Your task to perform on an android device: Open the calendar app, open the side menu, and click the "Day" option Image 0: 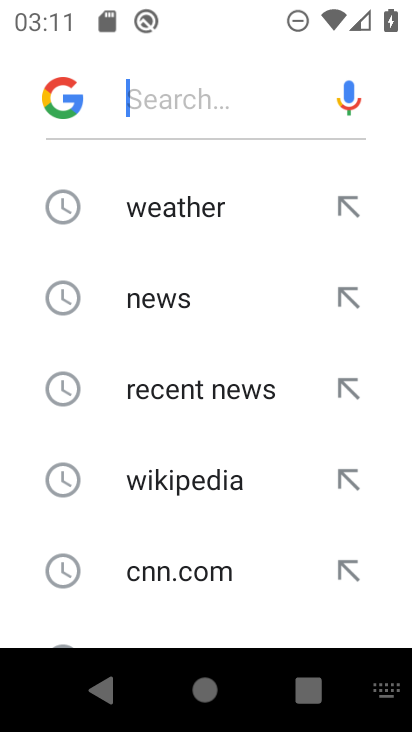
Step 0: press home button
Your task to perform on an android device: Open the calendar app, open the side menu, and click the "Day" option Image 1: 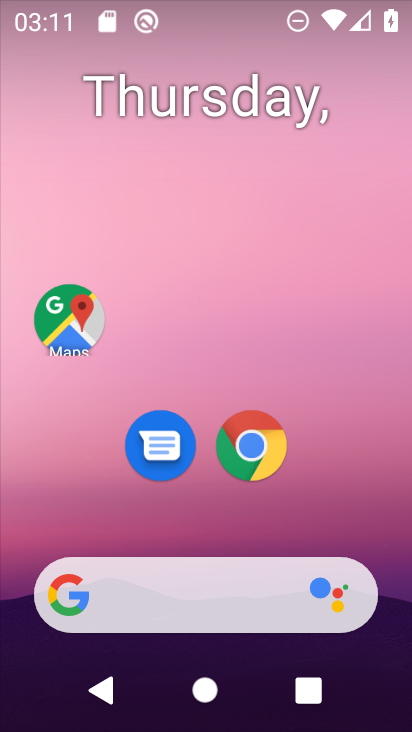
Step 1: drag from (359, 554) to (344, 7)
Your task to perform on an android device: Open the calendar app, open the side menu, and click the "Day" option Image 2: 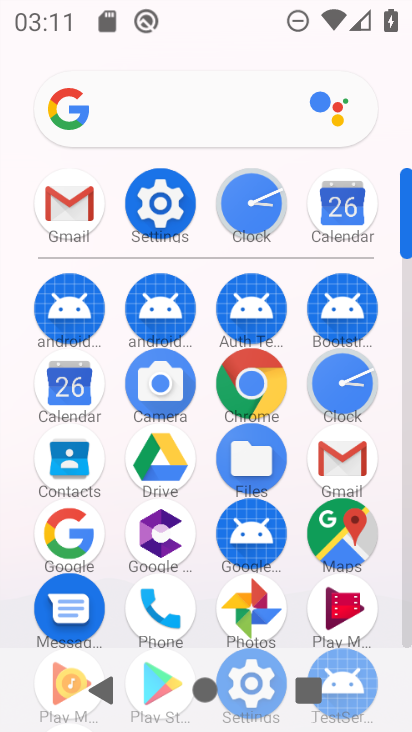
Step 2: click (349, 206)
Your task to perform on an android device: Open the calendar app, open the side menu, and click the "Day" option Image 3: 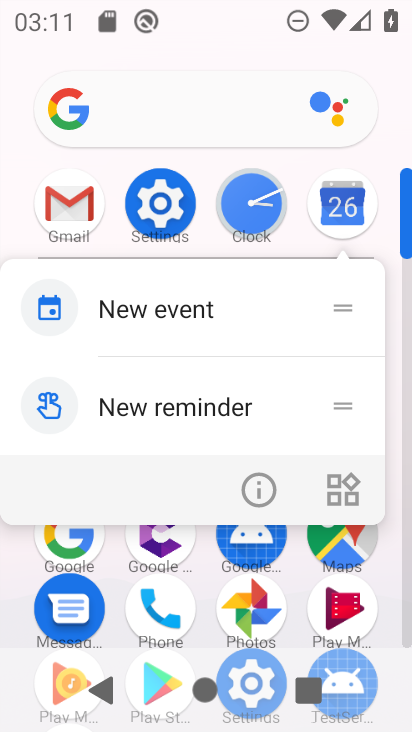
Step 3: click (349, 206)
Your task to perform on an android device: Open the calendar app, open the side menu, and click the "Day" option Image 4: 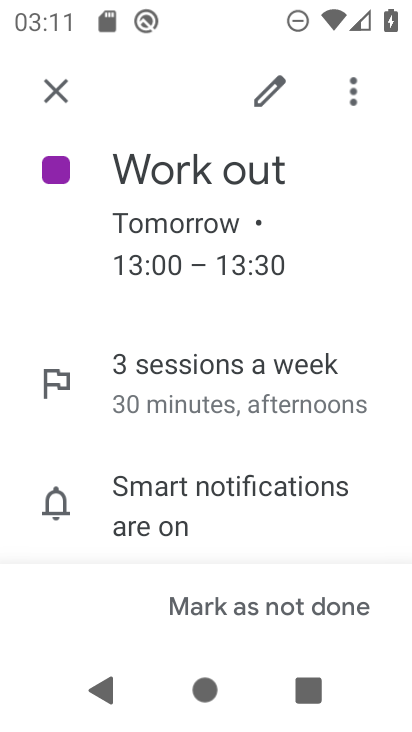
Step 4: click (57, 96)
Your task to perform on an android device: Open the calendar app, open the side menu, and click the "Day" option Image 5: 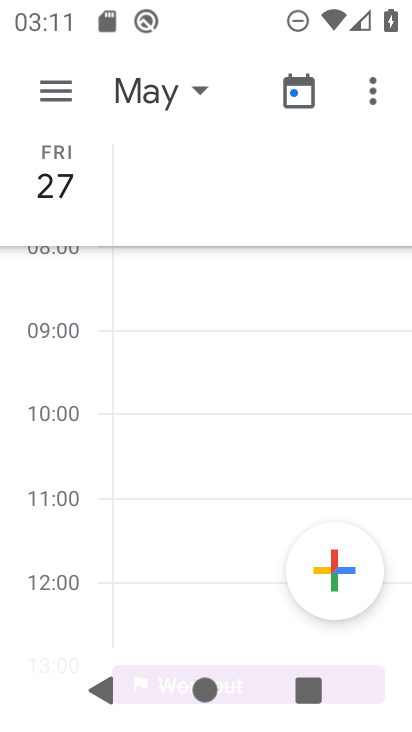
Step 5: click (57, 92)
Your task to perform on an android device: Open the calendar app, open the side menu, and click the "Day" option Image 6: 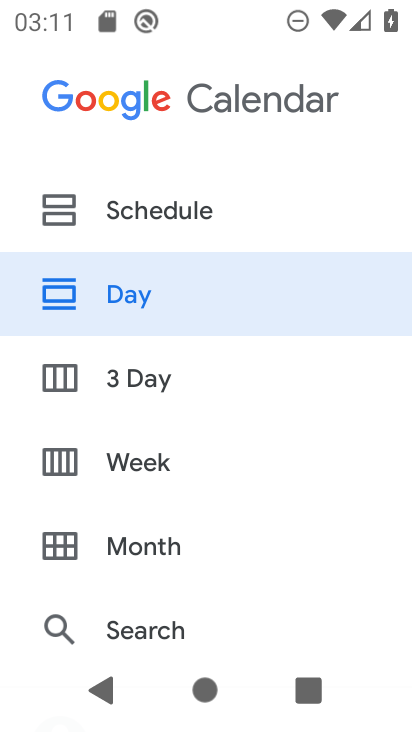
Step 6: click (159, 286)
Your task to perform on an android device: Open the calendar app, open the side menu, and click the "Day" option Image 7: 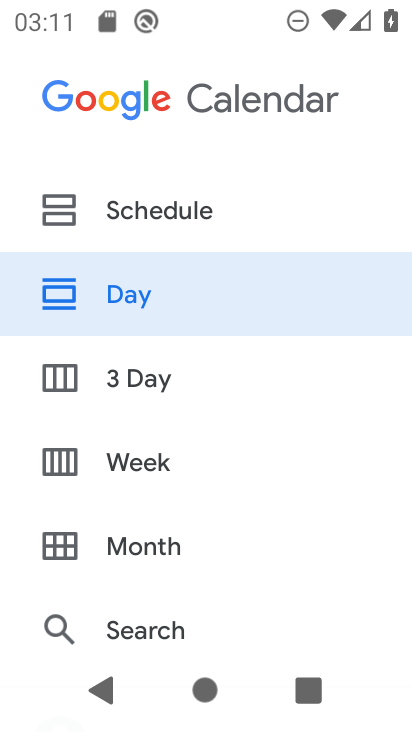
Step 7: click (120, 302)
Your task to perform on an android device: Open the calendar app, open the side menu, and click the "Day" option Image 8: 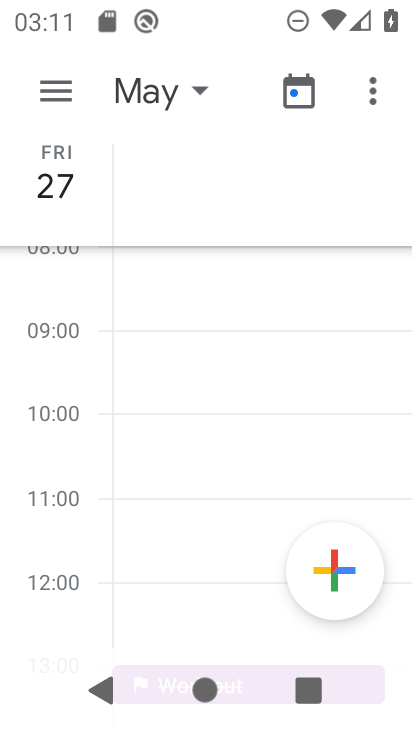
Step 8: task complete